Your task to perform on an android device: turn on improve location accuracy Image 0: 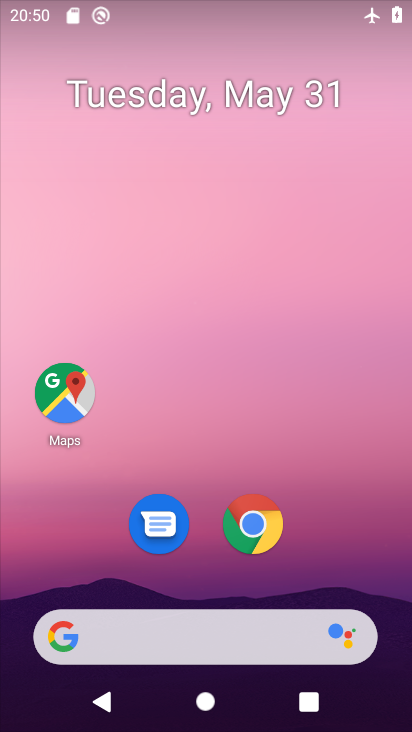
Step 0: drag from (330, 535) to (332, 26)
Your task to perform on an android device: turn on improve location accuracy Image 1: 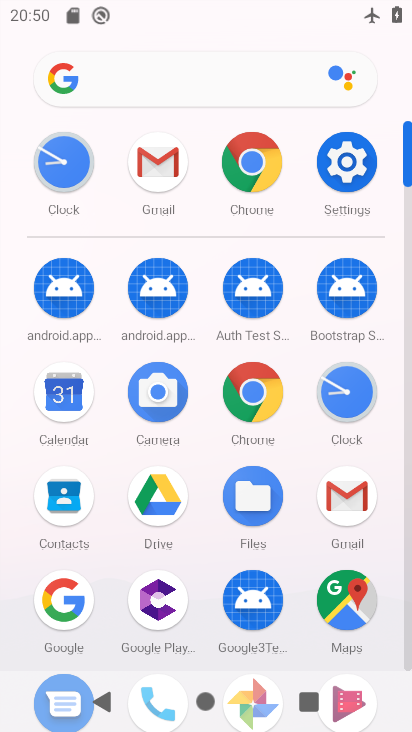
Step 1: click (346, 155)
Your task to perform on an android device: turn on improve location accuracy Image 2: 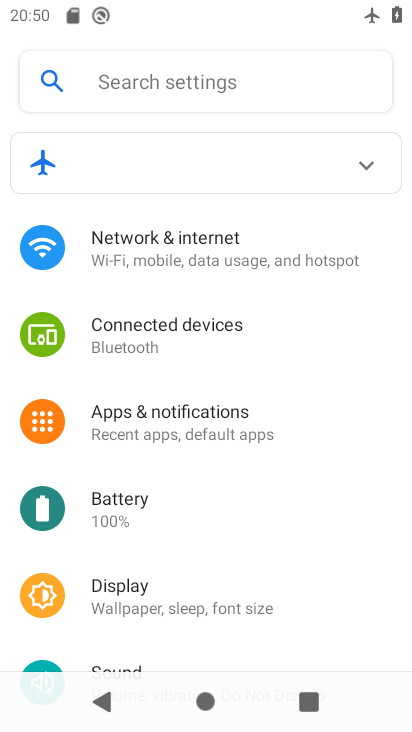
Step 2: drag from (253, 524) to (267, 59)
Your task to perform on an android device: turn on improve location accuracy Image 3: 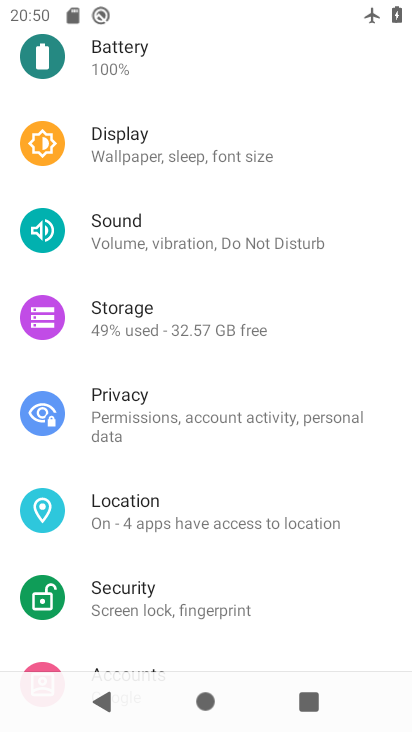
Step 3: click (217, 507)
Your task to perform on an android device: turn on improve location accuracy Image 4: 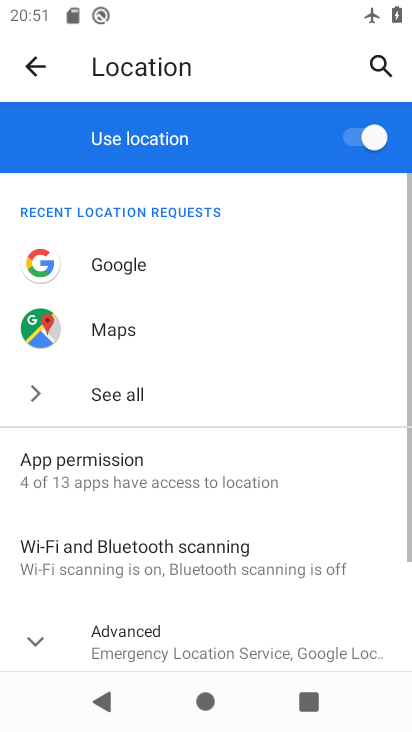
Step 4: click (31, 635)
Your task to perform on an android device: turn on improve location accuracy Image 5: 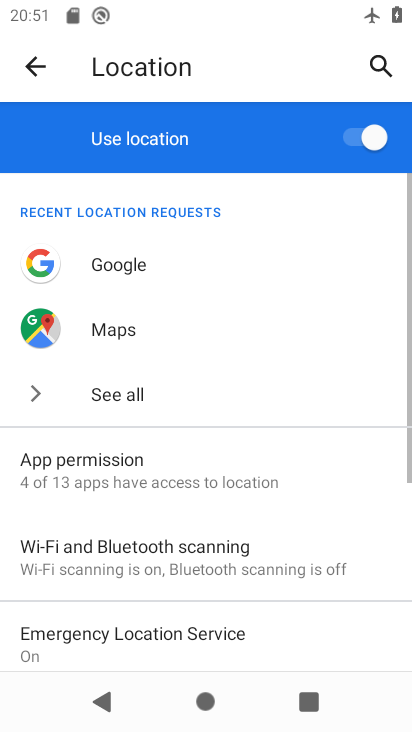
Step 5: task complete